Your task to perform on an android device: turn off translation in the chrome app Image 0: 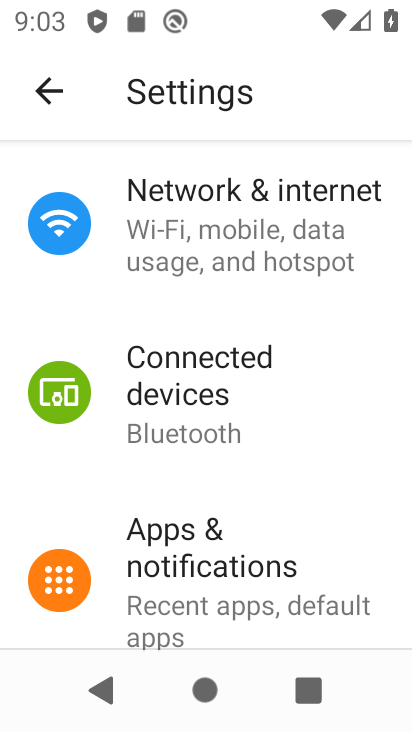
Step 0: press home button
Your task to perform on an android device: turn off translation in the chrome app Image 1: 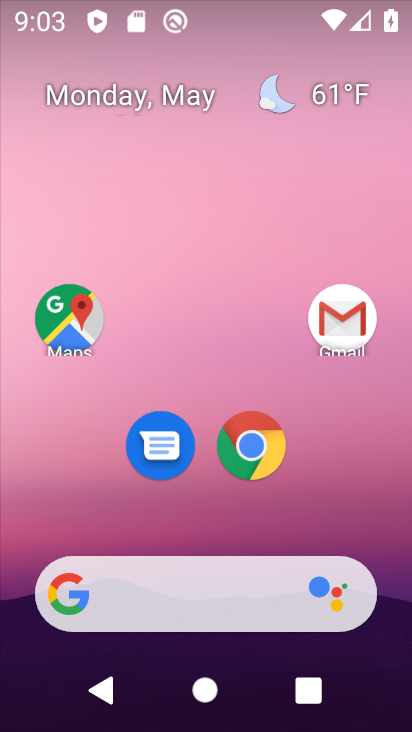
Step 1: drag from (391, 524) to (390, 199)
Your task to perform on an android device: turn off translation in the chrome app Image 2: 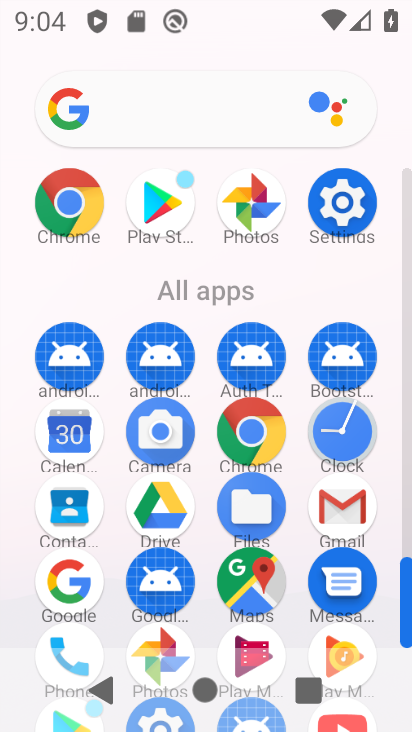
Step 2: click (262, 444)
Your task to perform on an android device: turn off translation in the chrome app Image 3: 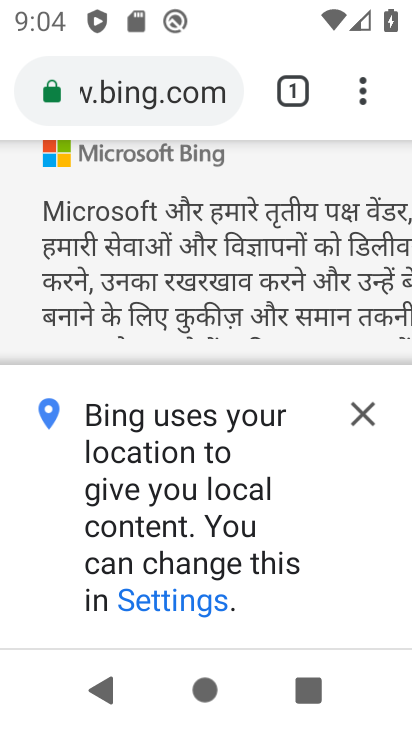
Step 3: click (363, 95)
Your task to perform on an android device: turn off translation in the chrome app Image 4: 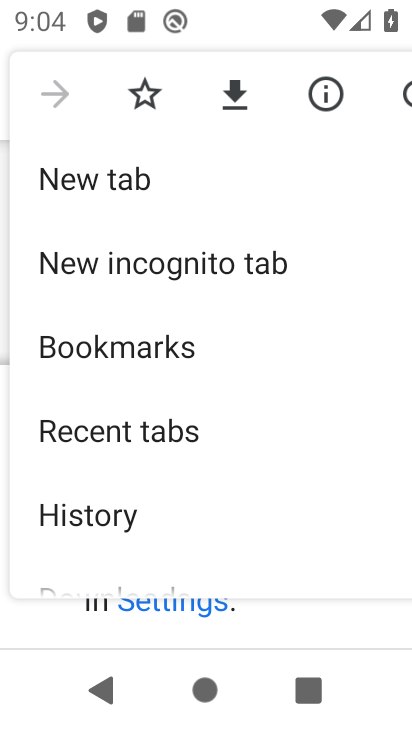
Step 4: drag from (355, 468) to (362, 357)
Your task to perform on an android device: turn off translation in the chrome app Image 5: 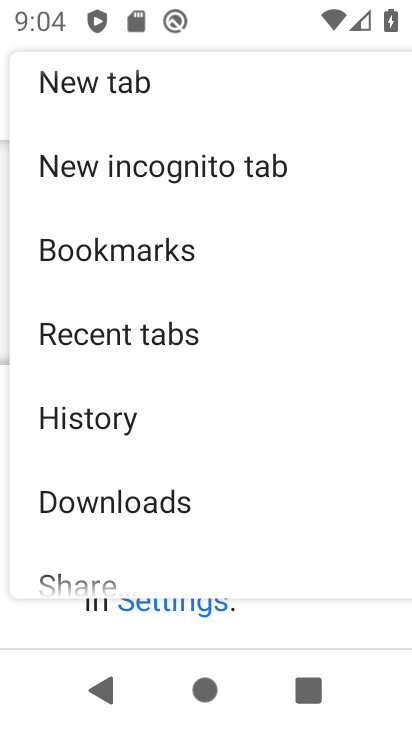
Step 5: drag from (338, 477) to (337, 363)
Your task to perform on an android device: turn off translation in the chrome app Image 6: 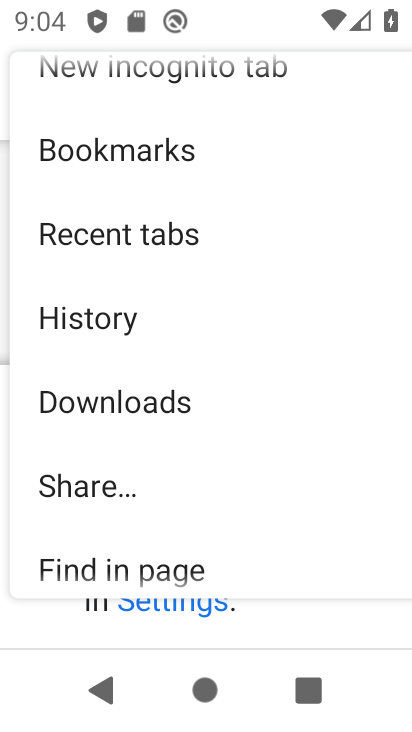
Step 6: drag from (332, 500) to (337, 351)
Your task to perform on an android device: turn off translation in the chrome app Image 7: 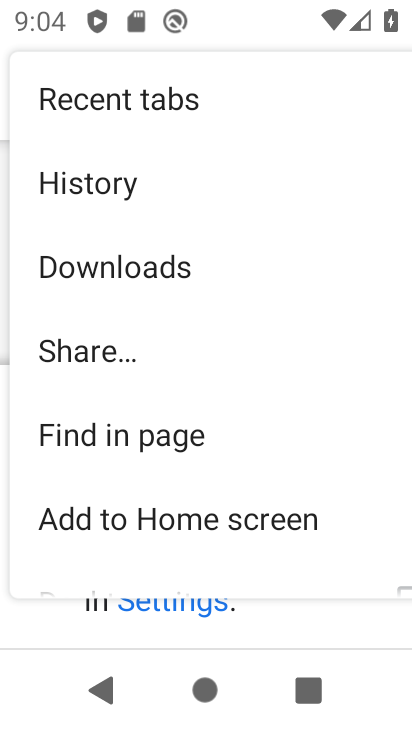
Step 7: drag from (364, 540) to (359, 400)
Your task to perform on an android device: turn off translation in the chrome app Image 8: 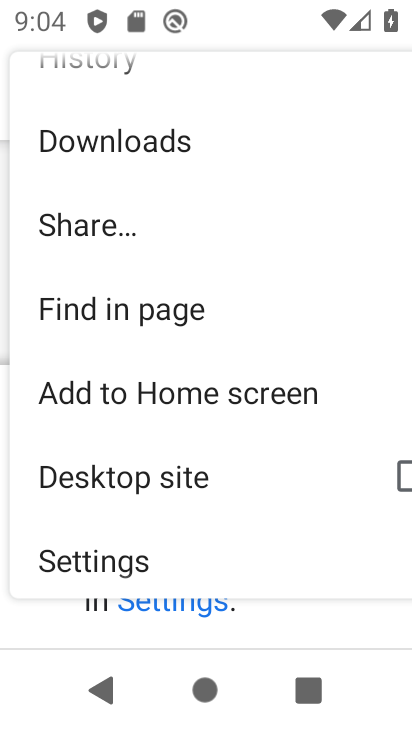
Step 8: drag from (328, 501) to (328, 381)
Your task to perform on an android device: turn off translation in the chrome app Image 9: 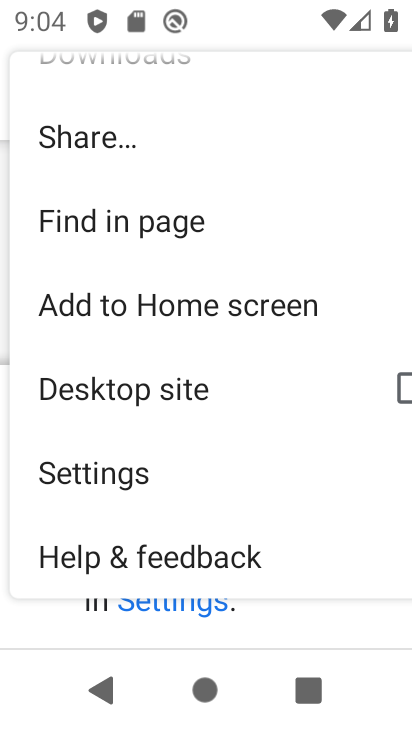
Step 9: drag from (298, 504) to (308, 425)
Your task to perform on an android device: turn off translation in the chrome app Image 10: 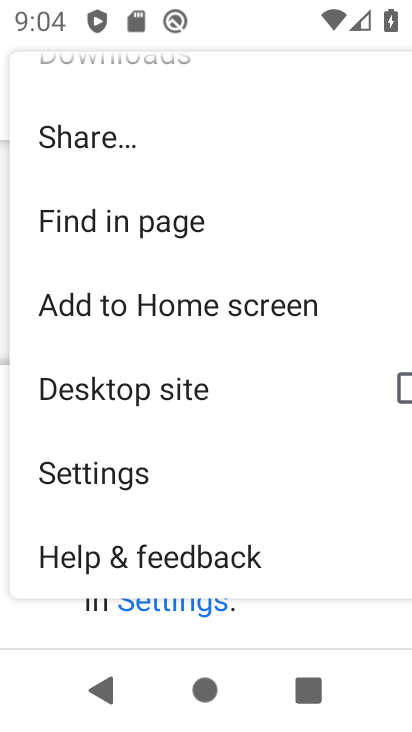
Step 10: click (197, 470)
Your task to perform on an android device: turn off translation in the chrome app Image 11: 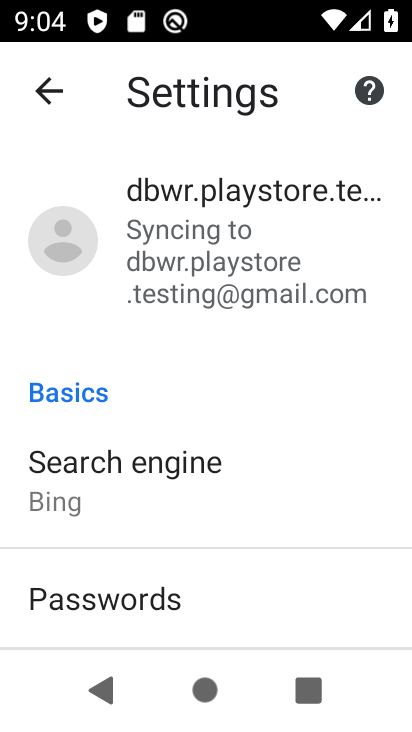
Step 11: drag from (309, 515) to (304, 378)
Your task to perform on an android device: turn off translation in the chrome app Image 12: 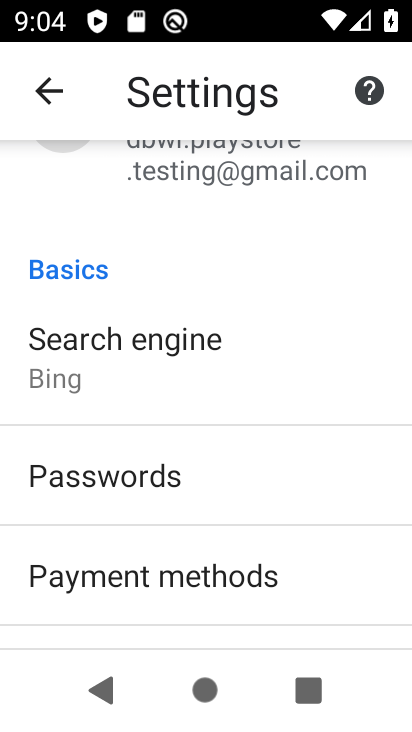
Step 12: drag from (304, 504) to (317, 384)
Your task to perform on an android device: turn off translation in the chrome app Image 13: 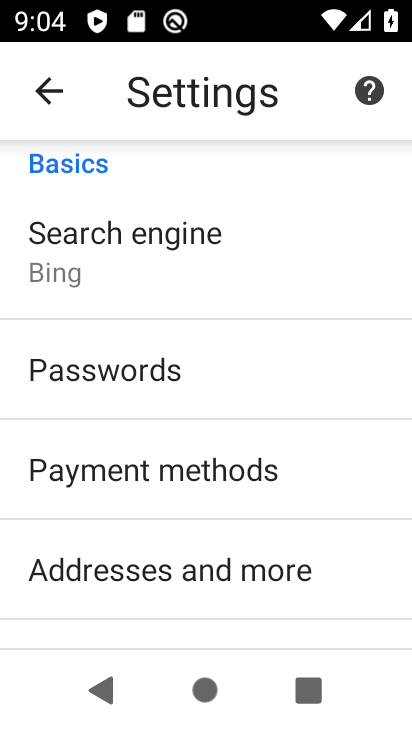
Step 13: drag from (337, 574) to (354, 464)
Your task to perform on an android device: turn off translation in the chrome app Image 14: 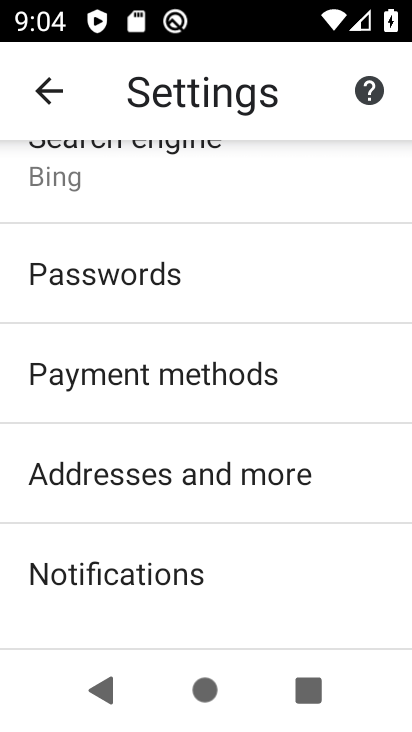
Step 14: drag from (356, 553) to (369, 390)
Your task to perform on an android device: turn off translation in the chrome app Image 15: 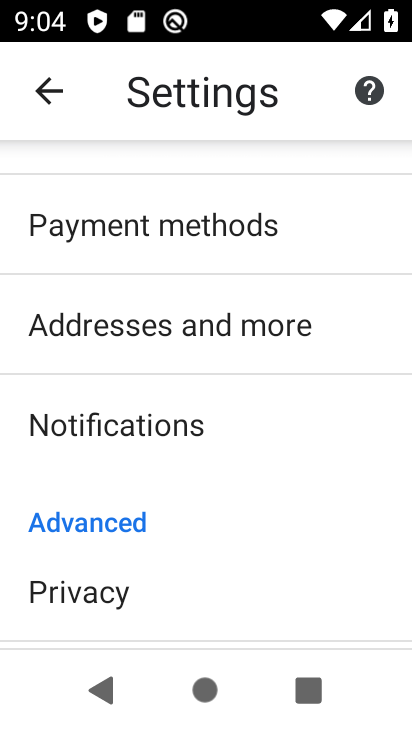
Step 15: drag from (326, 537) to (342, 397)
Your task to perform on an android device: turn off translation in the chrome app Image 16: 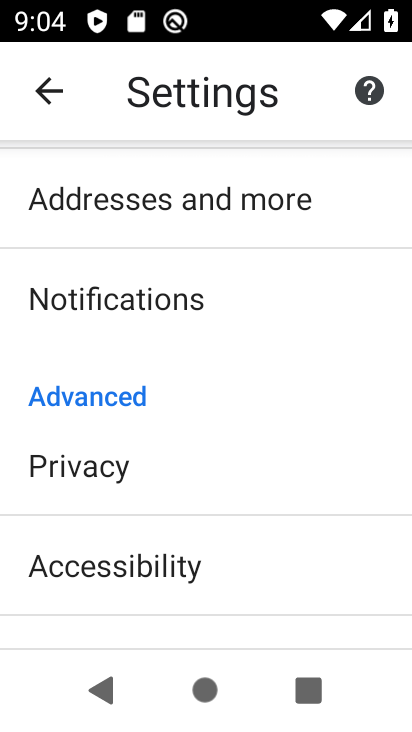
Step 16: drag from (347, 584) to (355, 417)
Your task to perform on an android device: turn off translation in the chrome app Image 17: 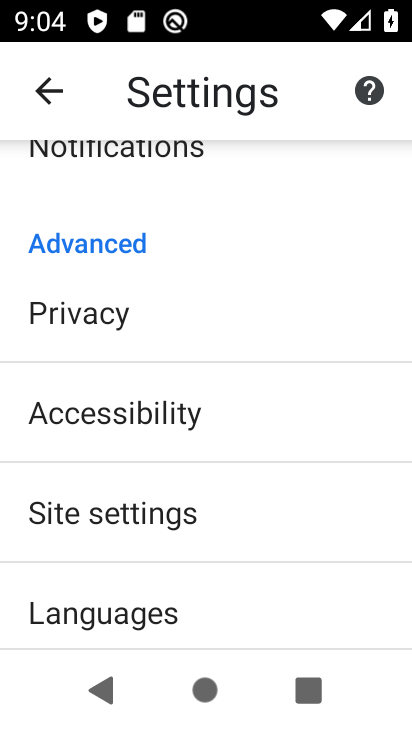
Step 17: drag from (327, 586) to (328, 429)
Your task to perform on an android device: turn off translation in the chrome app Image 18: 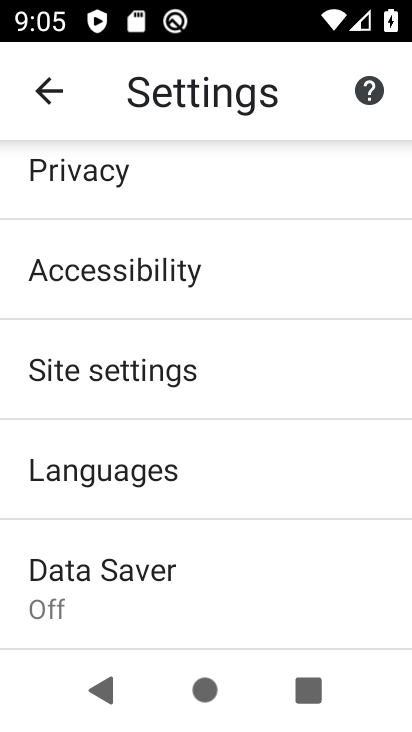
Step 18: click (325, 485)
Your task to perform on an android device: turn off translation in the chrome app Image 19: 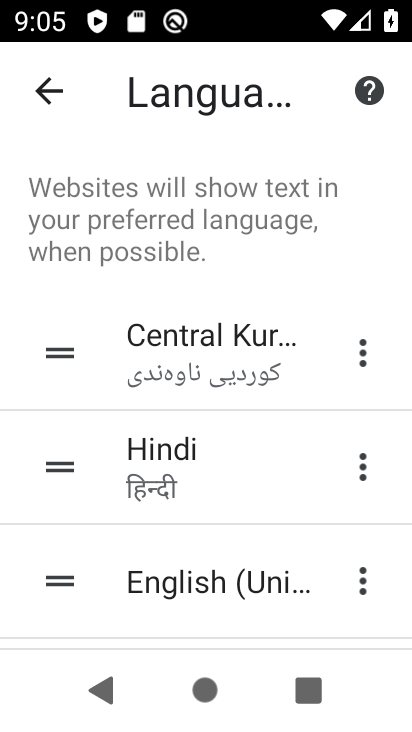
Step 19: task complete